Your task to perform on an android device: What is the news today? Image 0: 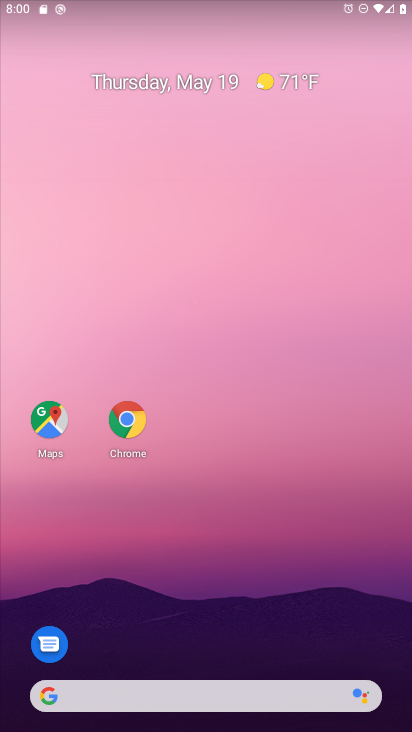
Step 0: press home button
Your task to perform on an android device: What is the news today? Image 1: 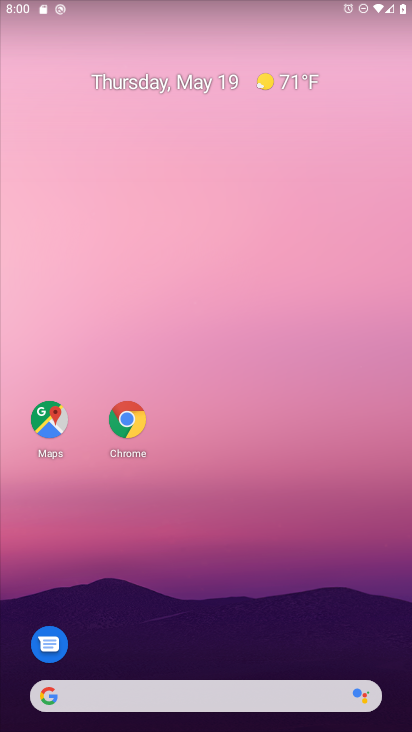
Step 1: drag from (138, 658) to (263, 291)
Your task to perform on an android device: What is the news today? Image 2: 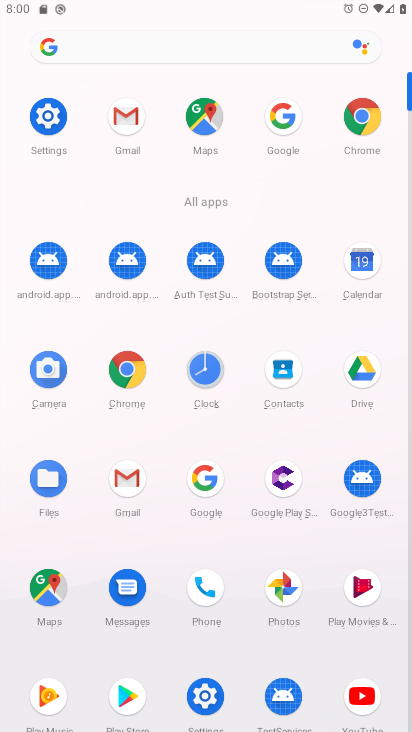
Step 2: click (200, 481)
Your task to perform on an android device: What is the news today? Image 3: 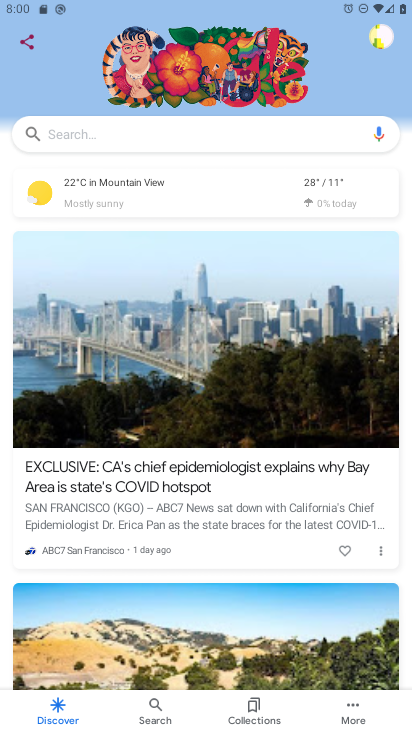
Step 3: click (143, 121)
Your task to perform on an android device: What is the news today? Image 4: 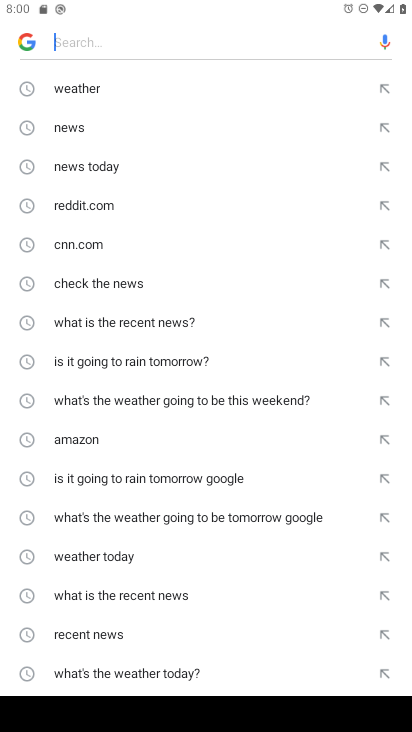
Step 4: click (84, 171)
Your task to perform on an android device: What is the news today? Image 5: 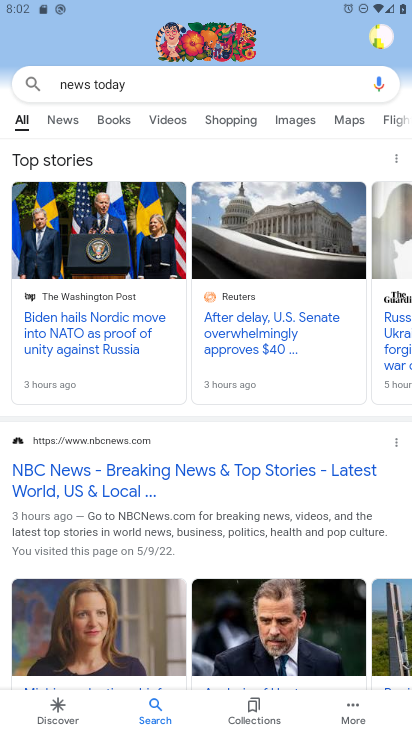
Step 5: task complete